Your task to perform on an android device: make emails show in primary in the gmail app Image 0: 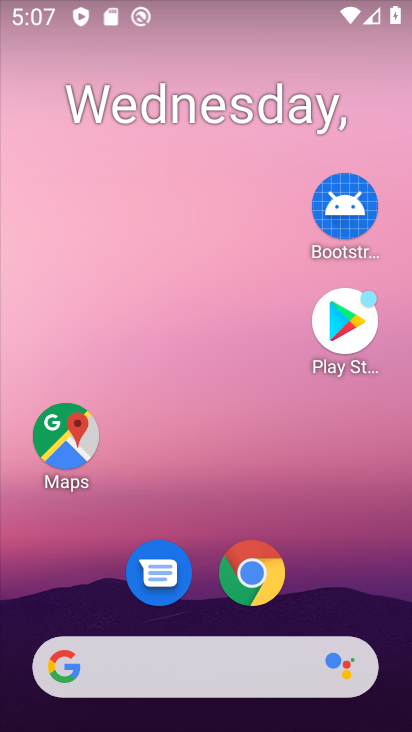
Step 0: drag from (369, 193) to (411, 56)
Your task to perform on an android device: make emails show in primary in the gmail app Image 1: 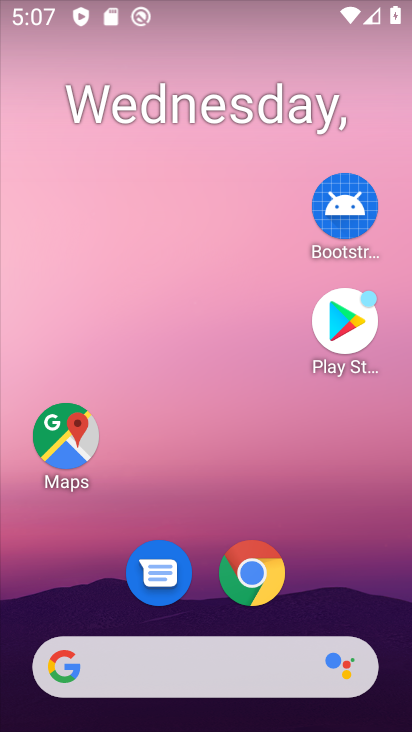
Step 1: drag from (303, 493) to (276, 9)
Your task to perform on an android device: make emails show in primary in the gmail app Image 2: 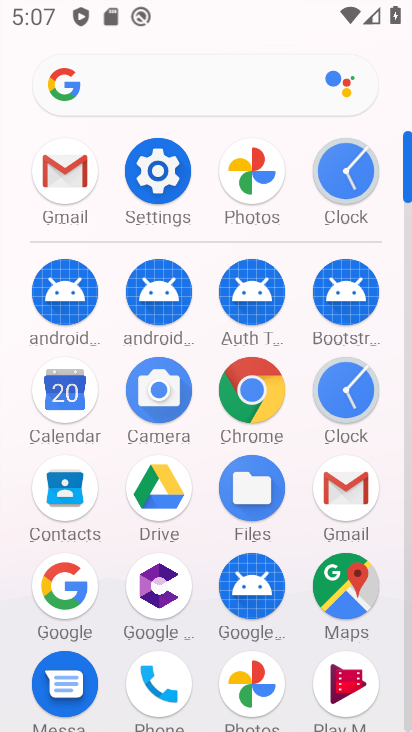
Step 2: click (70, 198)
Your task to perform on an android device: make emails show in primary in the gmail app Image 3: 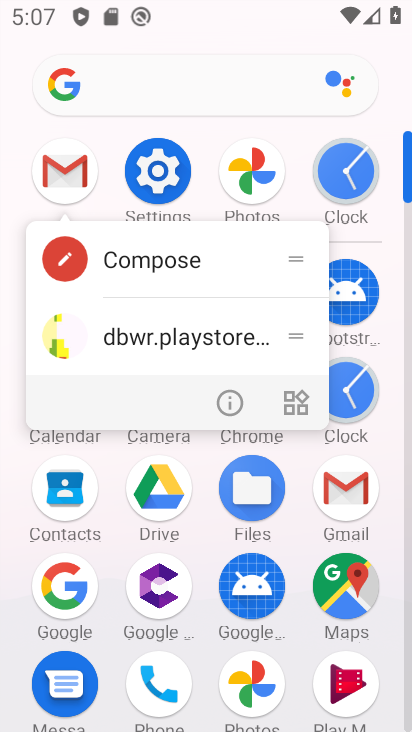
Step 3: click (70, 198)
Your task to perform on an android device: make emails show in primary in the gmail app Image 4: 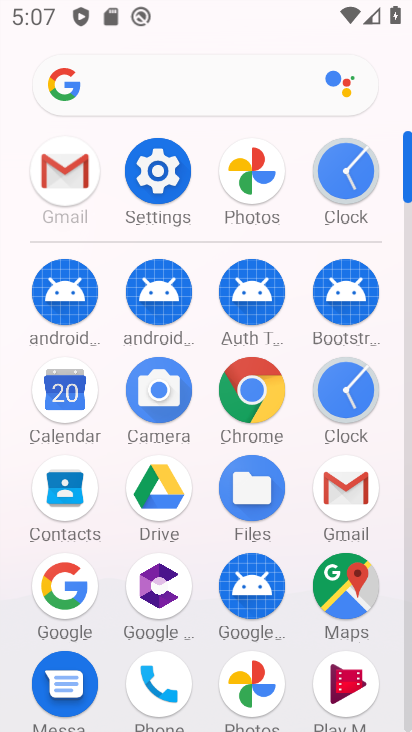
Step 4: click (70, 198)
Your task to perform on an android device: make emails show in primary in the gmail app Image 5: 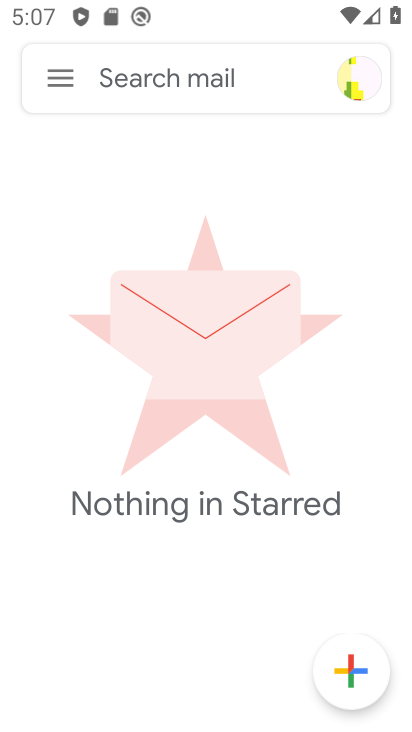
Step 5: click (61, 76)
Your task to perform on an android device: make emails show in primary in the gmail app Image 6: 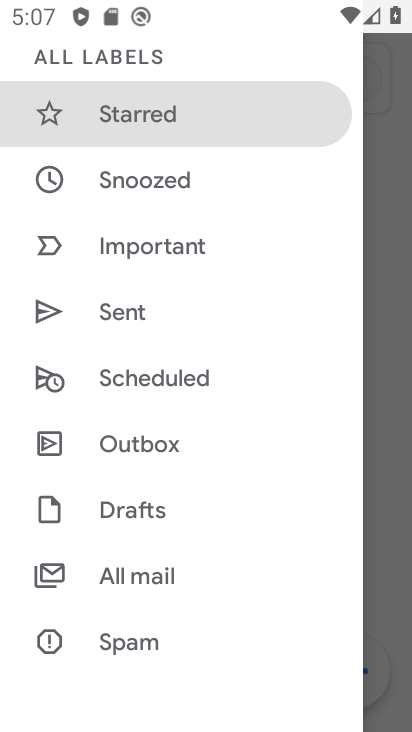
Step 6: task complete